Your task to perform on an android device: change notification settings in the gmail app Image 0: 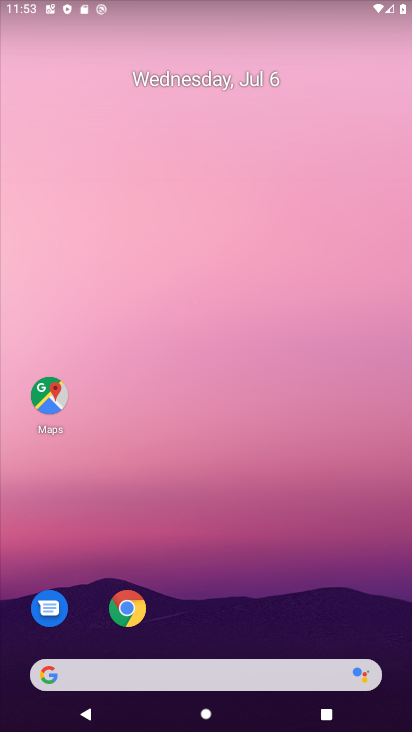
Step 0: drag from (152, 632) to (157, 201)
Your task to perform on an android device: change notification settings in the gmail app Image 1: 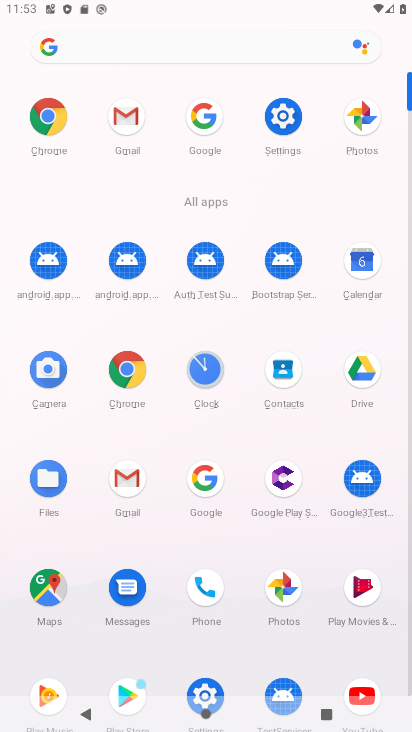
Step 1: click (129, 116)
Your task to perform on an android device: change notification settings in the gmail app Image 2: 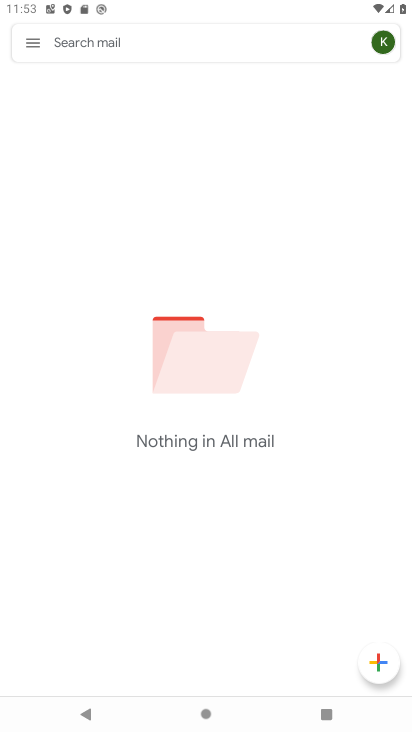
Step 2: click (31, 39)
Your task to perform on an android device: change notification settings in the gmail app Image 3: 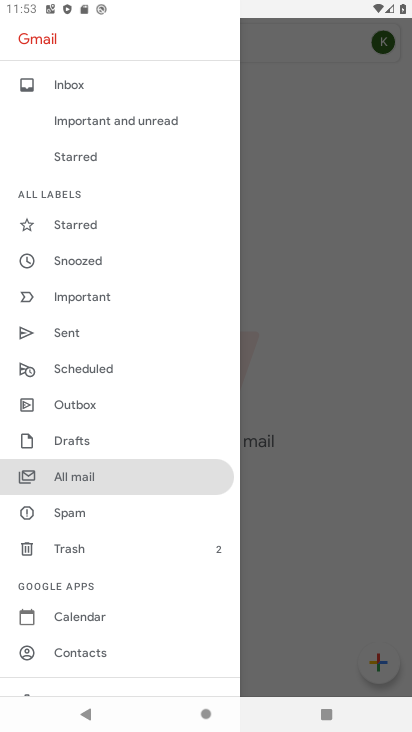
Step 3: drag from (72, 651) to (106, 152)
Your task to perform on an android device: change notification settings in the gmail app Image 4: 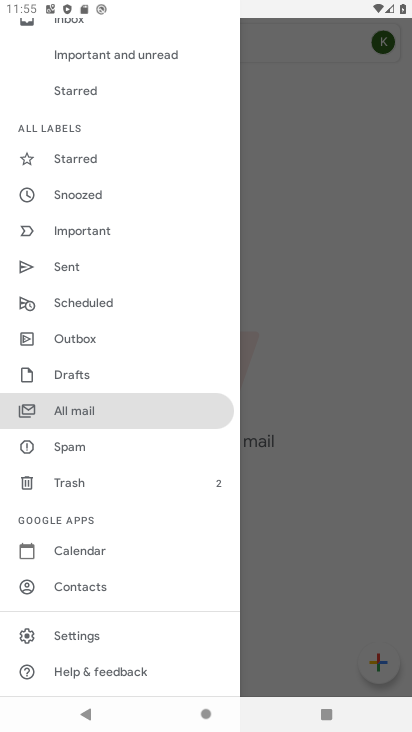
Step 4: click (65, 630)
Your task to perform on an android device: change notification settings in the gmail app Image 5: 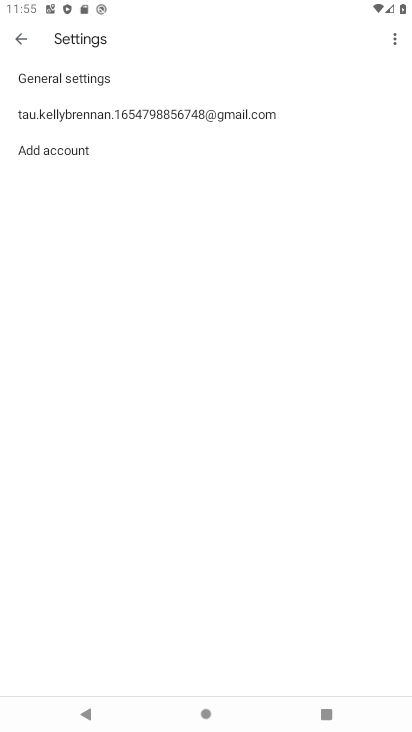
Step 5: click (67, 74)
Your task to perform on an android device: change notification settings in the gmail app Image 6: 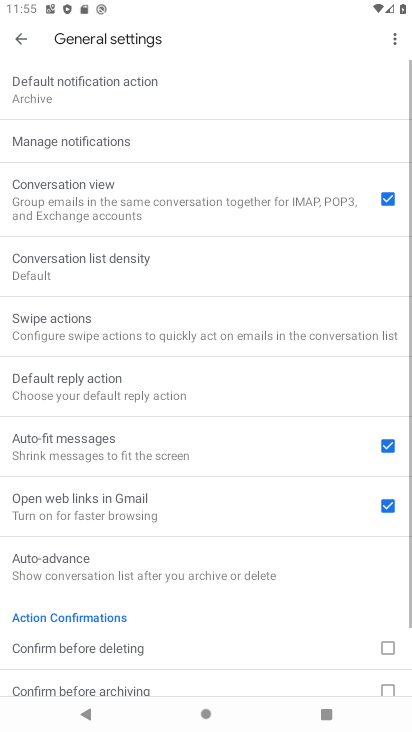
Step 6: click (45, 144)
Your task to perform on an android device: change notification settings in the gmail app Image 7: 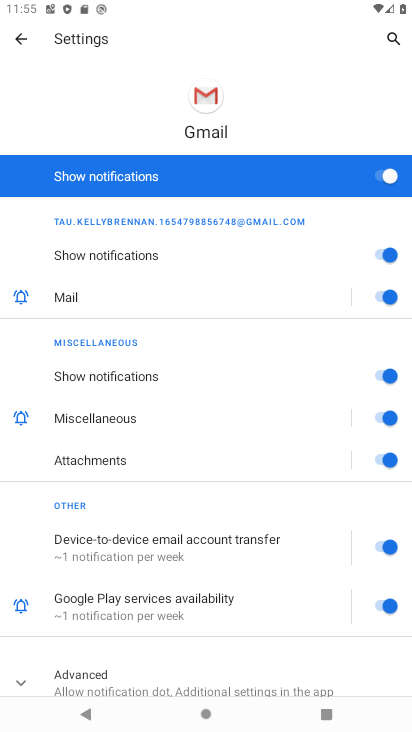
Step 7: click (390, 180)
Your task to perform on an android device: change notification settings in the gmail app Image 8: 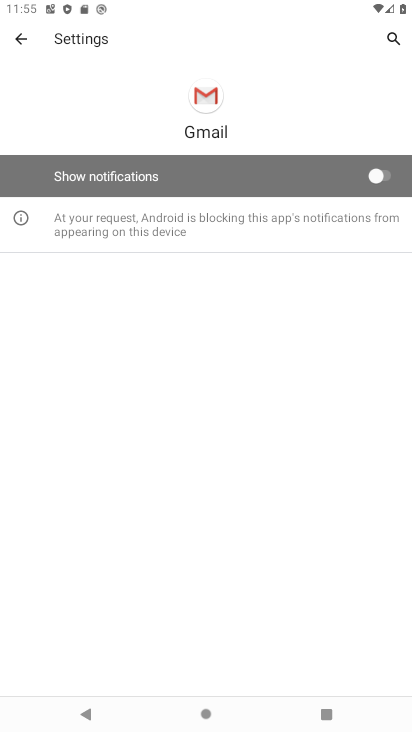
Step 8: task complete